Your task to perform on an android device: stop showing notifications on the lock screen Image 0: 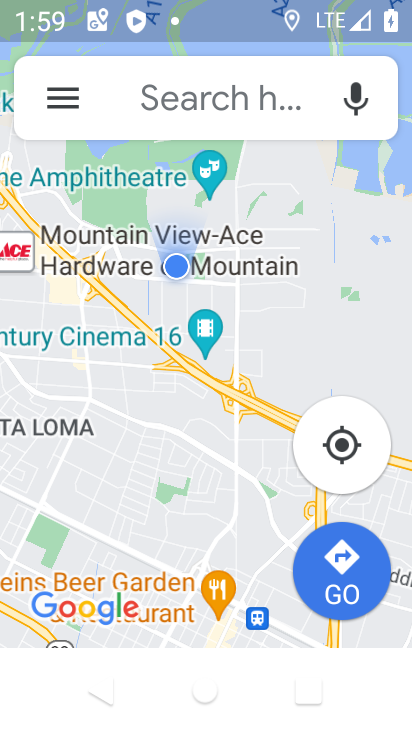
Step 0: press home button
Your task to perform on an android device: stop showing notifications on the lock screen Image 1: 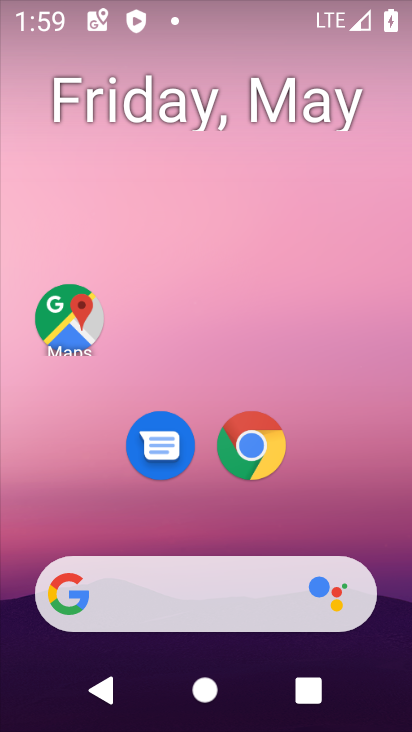
Step 1: drag from (210, 531) to (184, 18)
Your task to perform on an android device: stop showing notifications on the lock screen Image 2: 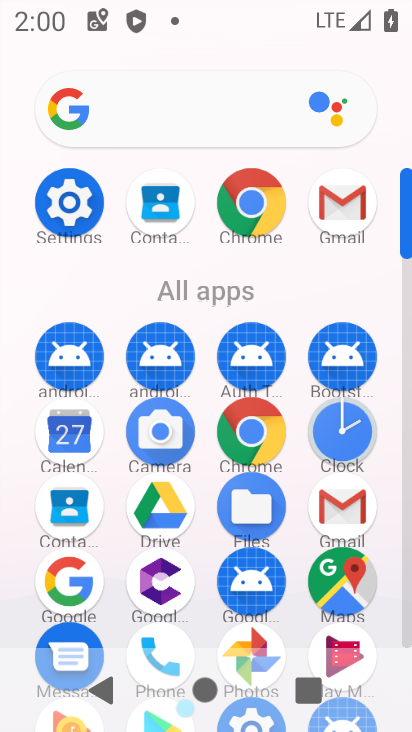
Step 2: click (75, 192)
Your task to perform on an android device: stop showing notifications on the lock screen Image 3: 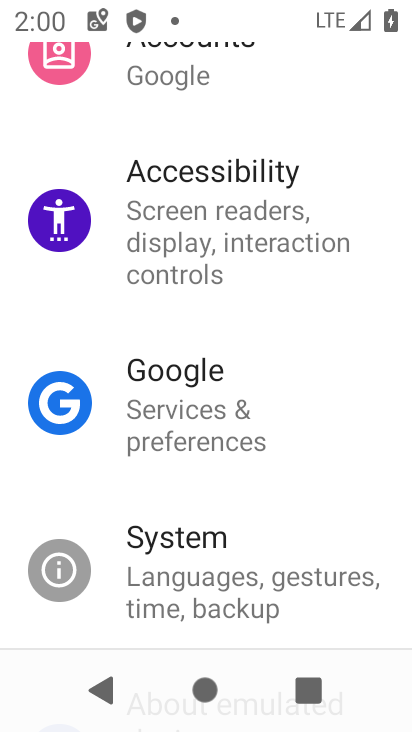
Step 3: drag from (179, 117) to (188, 722)
Your task to perform on an android device: stop showing notifications on the lock screen Image 4: 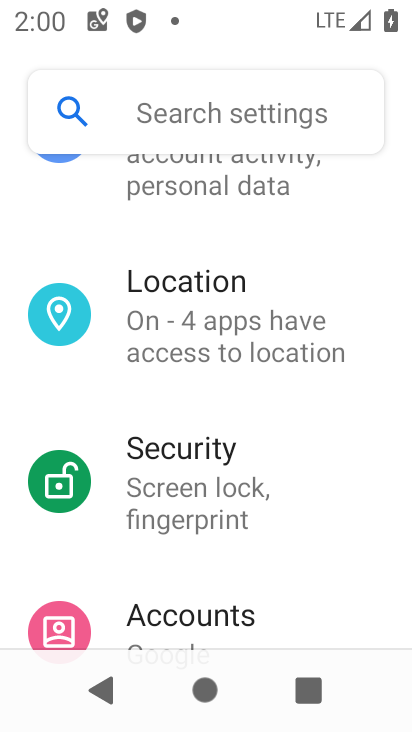
Step 4: drag from (95, 222) to (111, 671)
Your task to perform on an android device: stop showing notifications on the lock screen Image 5: 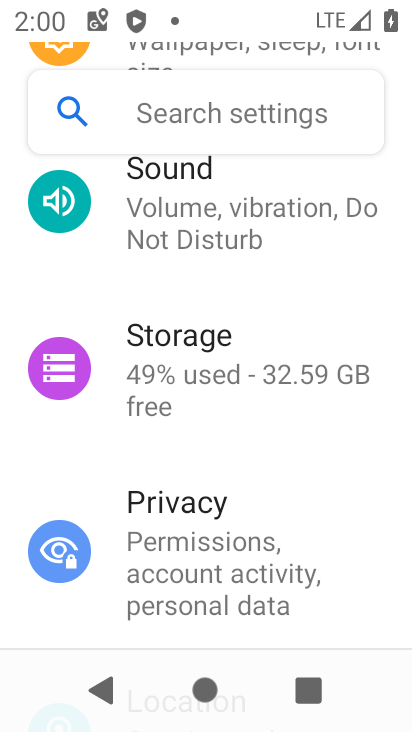
Step 5: drag from (104, 186) to (146, 644)
Your task to perform on an android device: stop showing notifications on the lock screen Image 6: 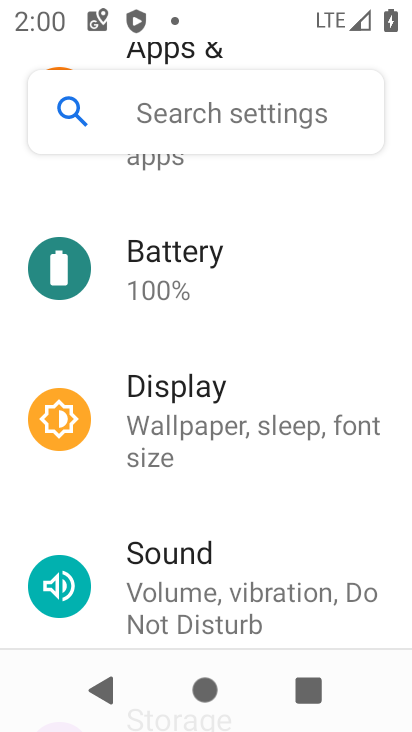
Step 6: drag from (118, 240) to (221, 725)
Your task to perform on an android device: stop showing notifications on the lock screen Image 7: 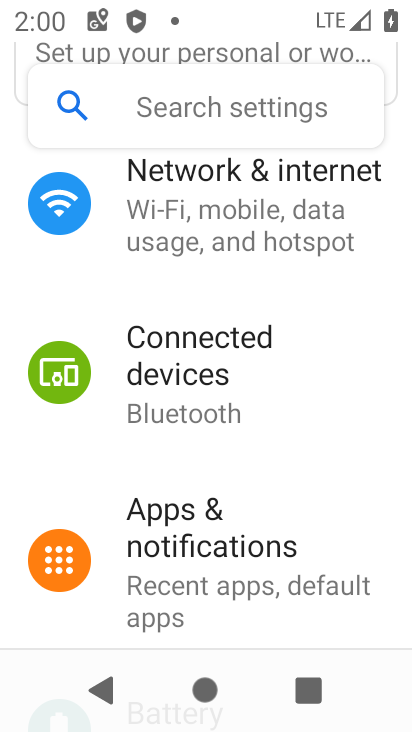
Step 7: click (121, 591)
Your task to perform on an android device: stop showing notifications on the lock screen Image 8: 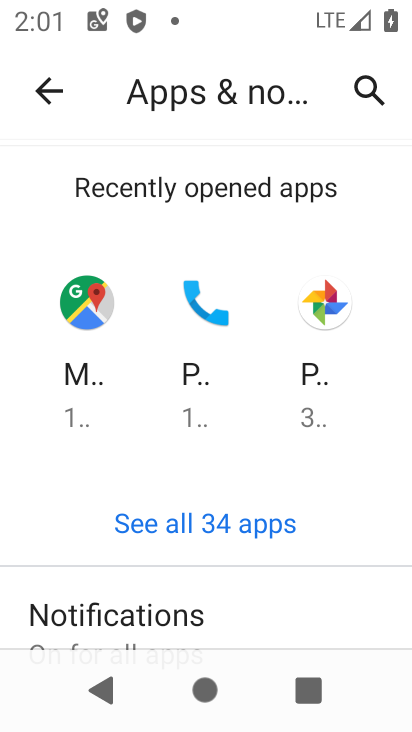
Step 8: click (230, 620)
Your task to perform on an android device: stop showing notifications on the lock screen Image 9: 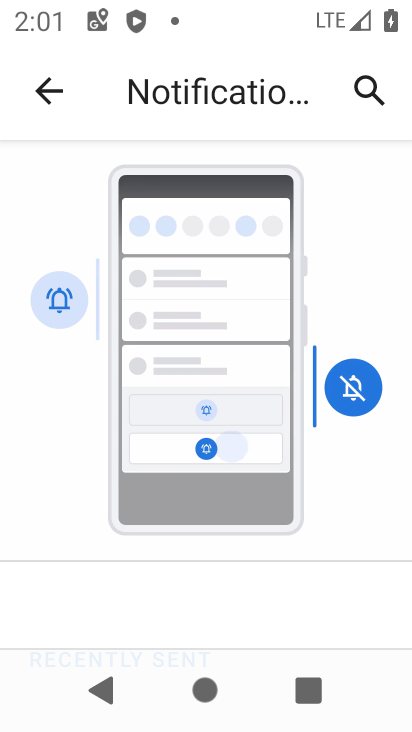
Step 9: drag from (160, 605) to (186, 237)
Your task to perform on an android device: stop showing notifications on the lock screen Image 10: 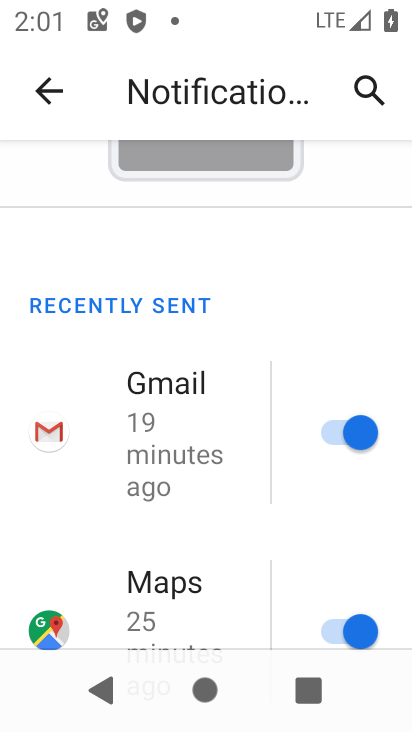
Step 10: drag from (210, 614) to (245, 204)
Your task to perform on an android device: stop showing notifications on the lock screen Image 11: 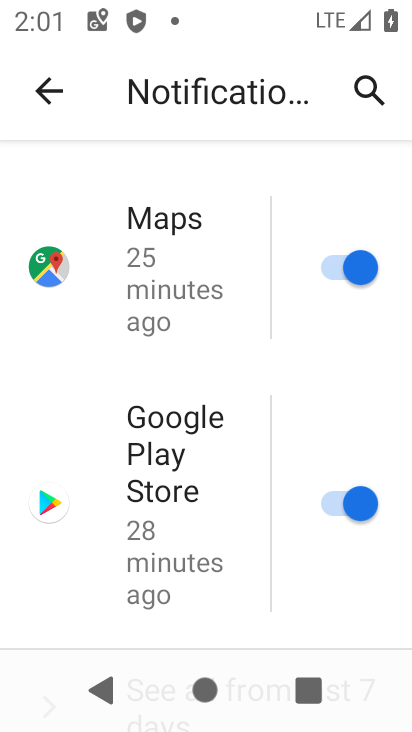
Step 11: drag from (207, 562) to (287, 169)
Your task to perform on an android device: stop showing notifications on the lock screen Image 12: 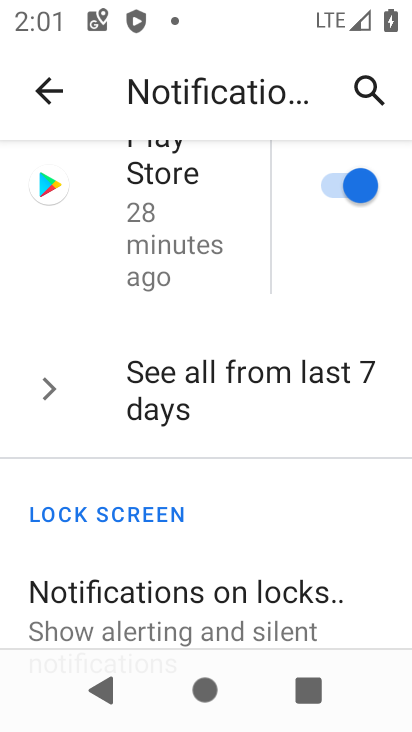
Step 12: click (267, 587)
Your task to perform on an android device: stop showing notifications on the lock screen Image 13: 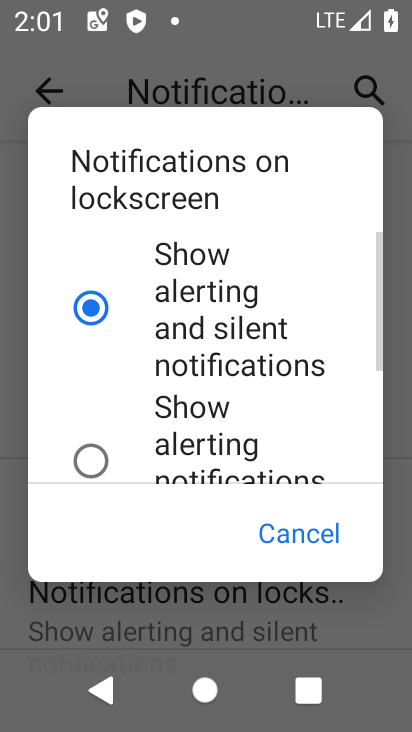
Step 13: click (126, 86)
Your task to perform on an android device: stop showing notifications on the lock screen Image 14: 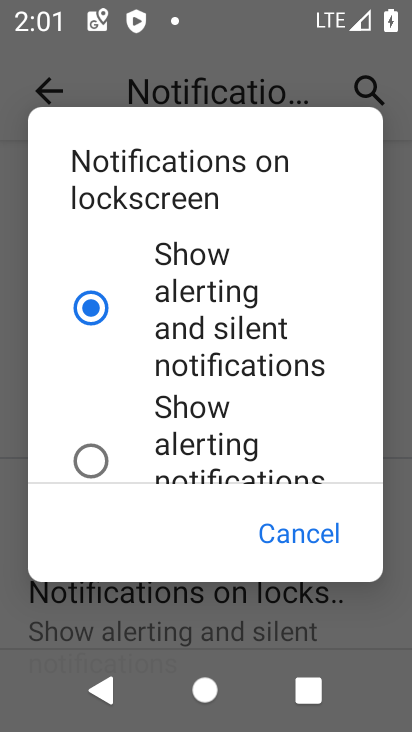
Step 14: drag from (136, 458) to (140, 106)
Your task to perform on an android device: stop showing notifications on the lock screen Image 15: 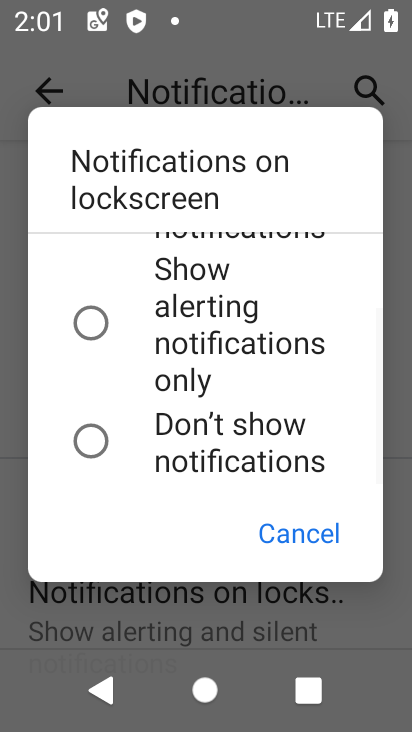
Step 15: click (85, 447)
Your task to perform on an android device: stop showing notifications on the lock screen Image 16: 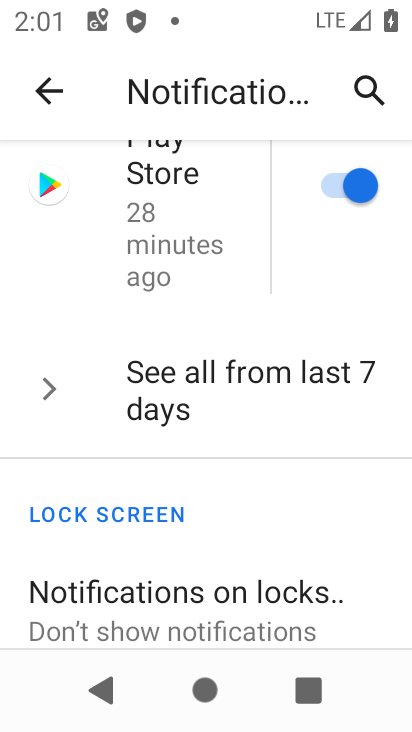
Step 16: task complete